Your task to perform on an android device: Open display settings Image 0: 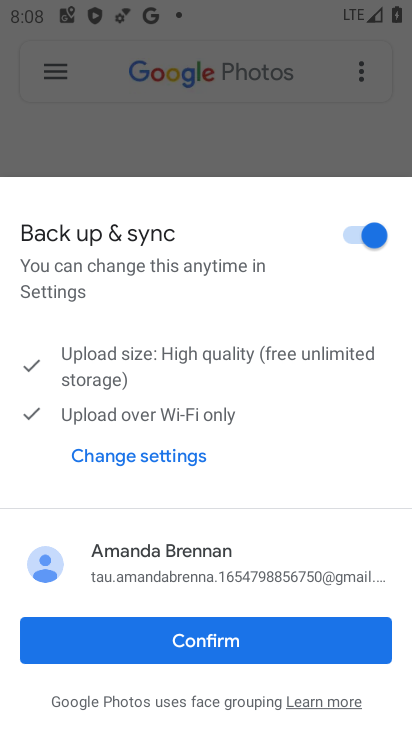
Step 0: press home button
Your task to perform on an android device: Open display settings Image 1: 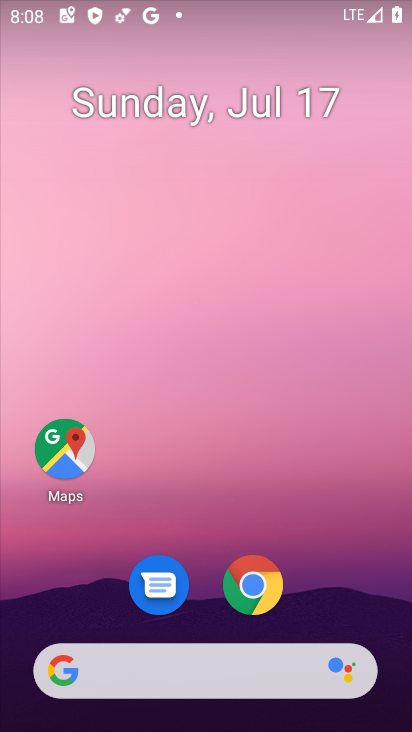
Step 1: drag from (336, 540) to (292, 49)
Your task to perform on an android device: Open display settings Image 2: 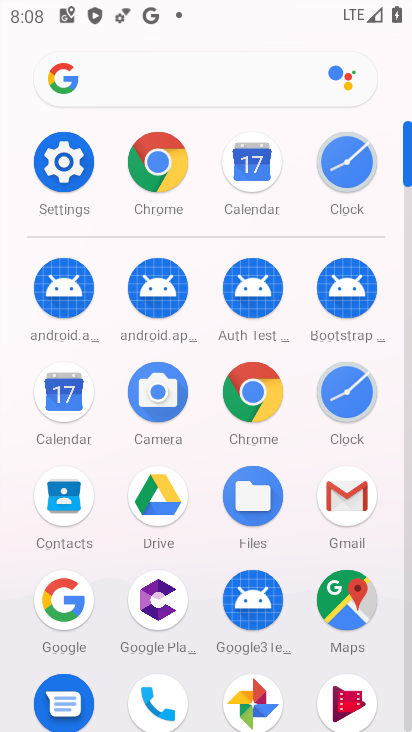
Step 2: click (85, 170)
Your task to perform on an android device: Open display settings Image 3: 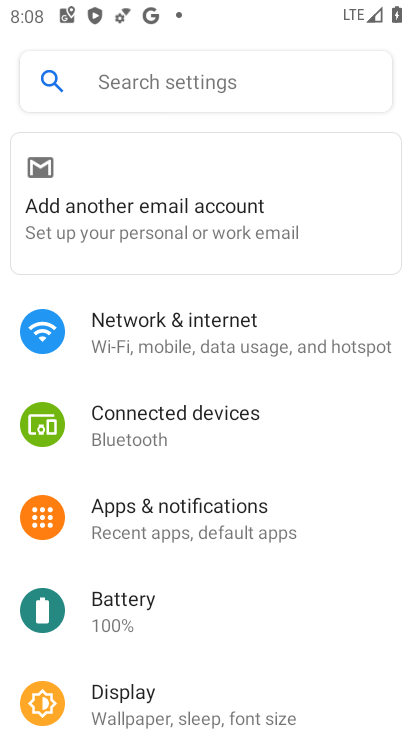
Step 3: drag from (254, 621) to (232, 325)
Your task to perform on an android device: Open display settings Image 4: 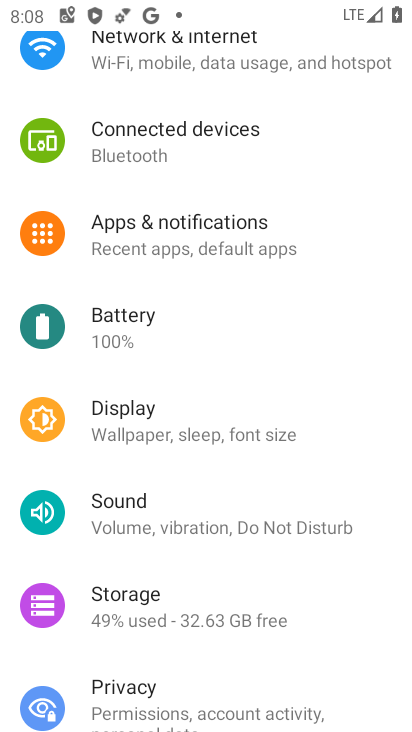
Step 4: click (208, 422)
Your task to perform on an android device: Open display settings Image 5: 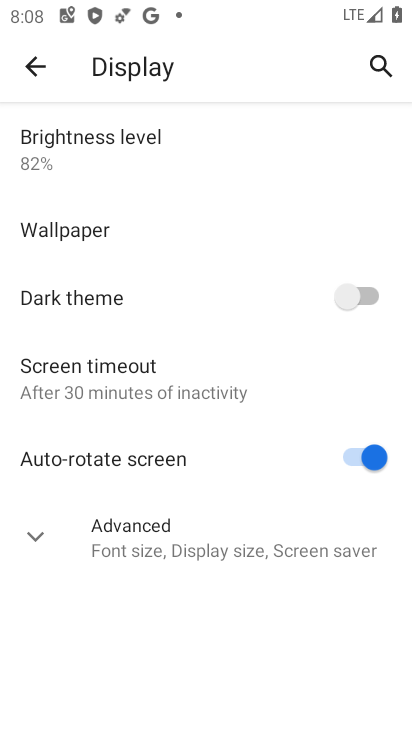
Step 5: task complete